Your task to perform on an android device: Toggle the flashlight Image 0: 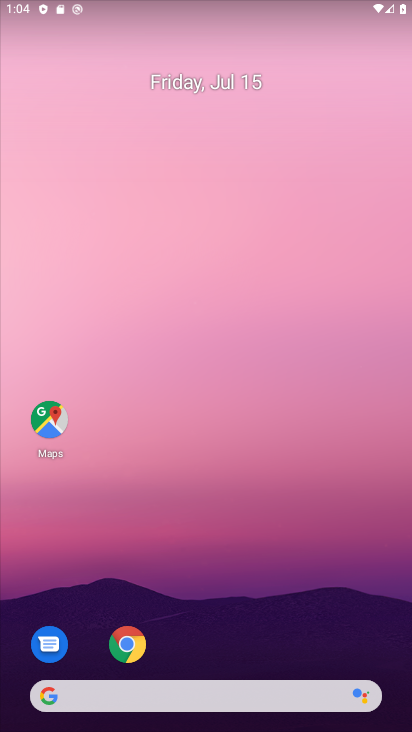
Step 0: drag from (327, 418) to (261, 109)
Your task to perform on an android device: Toggle the flashlight Image 1: 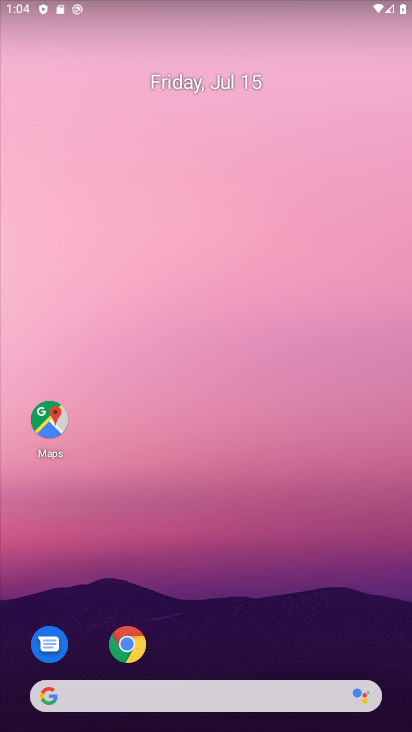
Step 1: drag from (389, 662) to (288, 1)
Your task to perform on an android device: Toggle the flashlight Image 2: 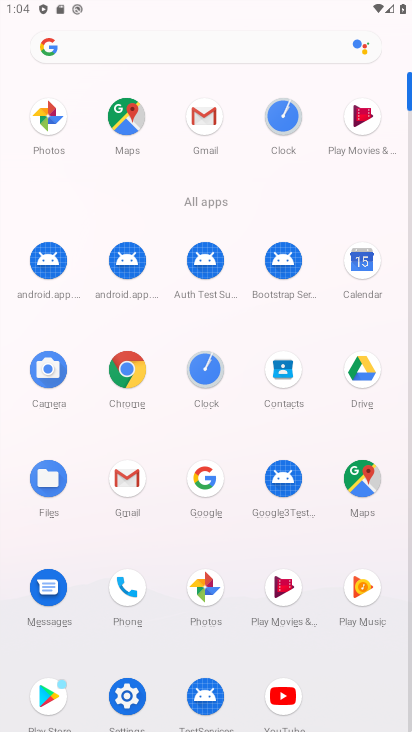
Step 2: click (130, 686)
Your task to perform on an android device: Toggle the flashlight Image 3: 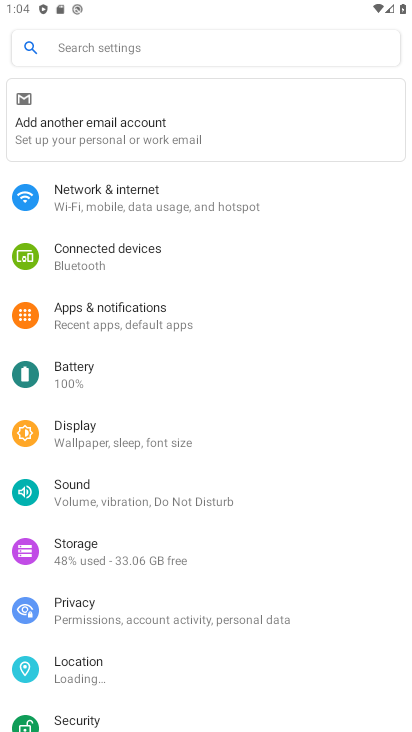
Step 3: click (76, 433)
Your task to perform on an android device: Toggle the flashlight Image 4: 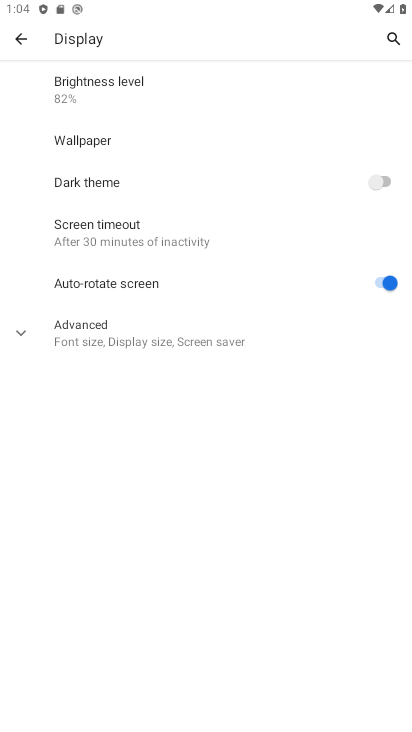
Step 4: task complete